Your task to perform on an android device: change the upload size in google photos Image 0: 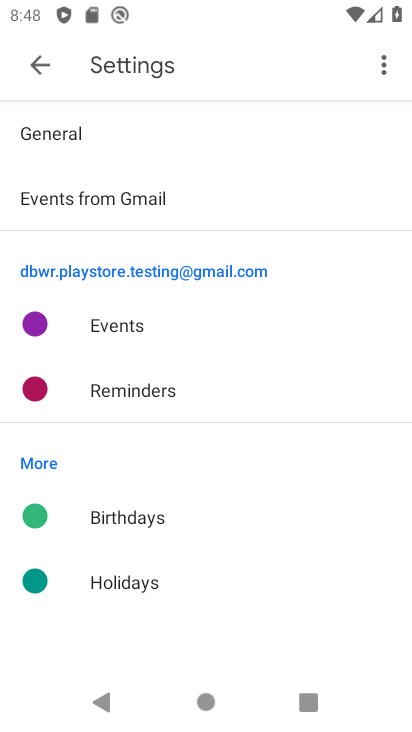
Step 0: press home button
Your task to perform on an android device: change the upload size in google photos Image 1: 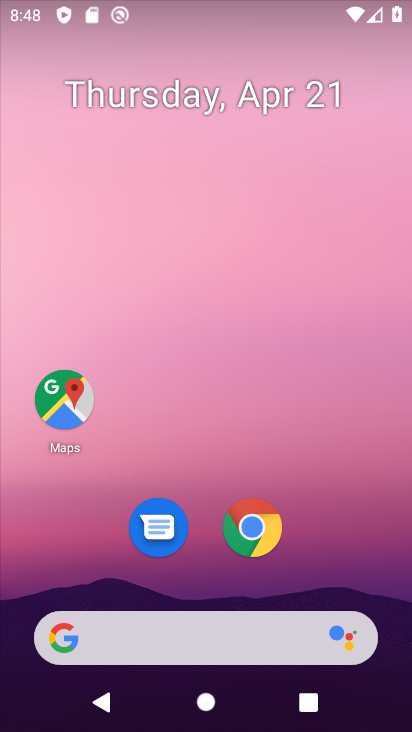
Step 1: drag from (241, 602) to (271, 275)
Your task to perform on an android device: change the upload size in google photos Image 2: 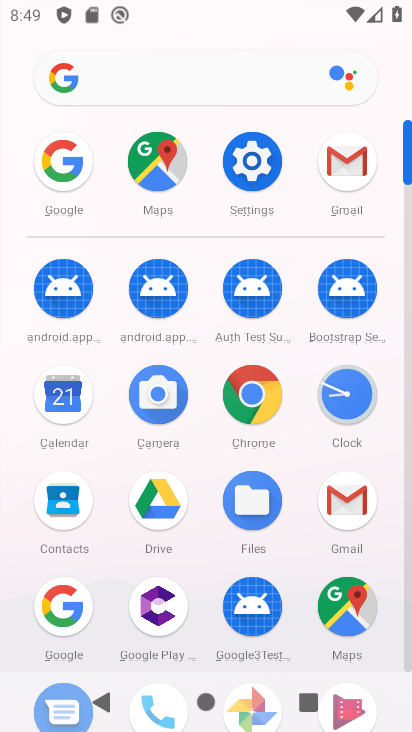
Step 2: drag from (268, 550) to (257, 246)
Your task to perform on an android device: change the upload size in google photos Image 3: 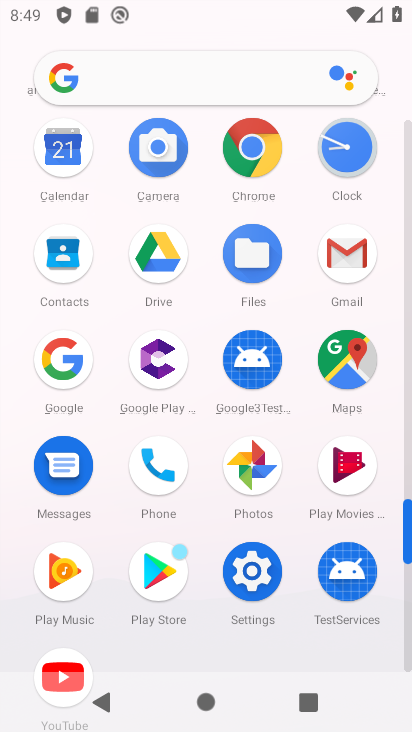
Step 3: click (259, 499)
Your task to perform on an android device: change the upload size in google photos Image 4: 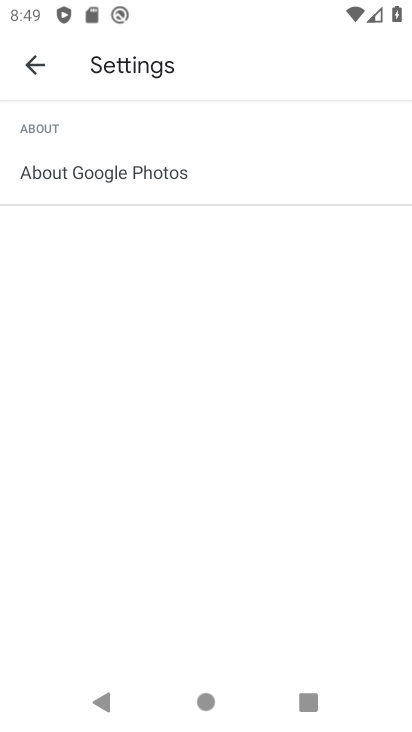
Step 4: click (37, 67)
Your task to perform on an android device: change the upload size in google photos Image 5: 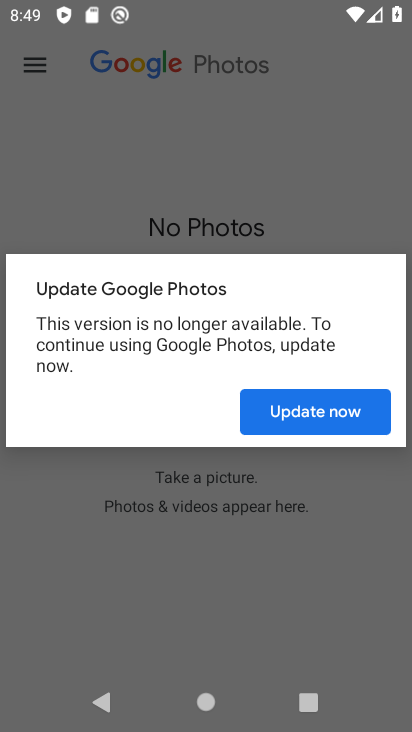
Step 5: task complete